Your task to perform on an android device: turn off priority inbox in the gmail app Image 0: 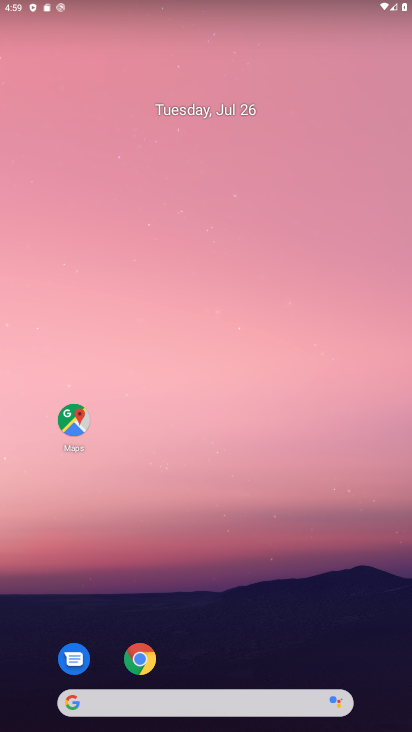
Step 0: drag from (218, 622) to (182, 37)
Your task to perform on an android device: turn off priority inbox in the gmail app Image 1: 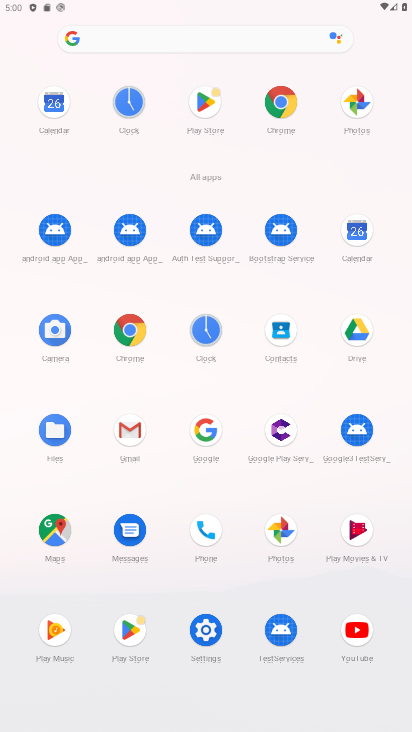
Step 1: click (132, 432)
Your task to perform on an android device: turn off priority inbox in the gmail app Image 2: 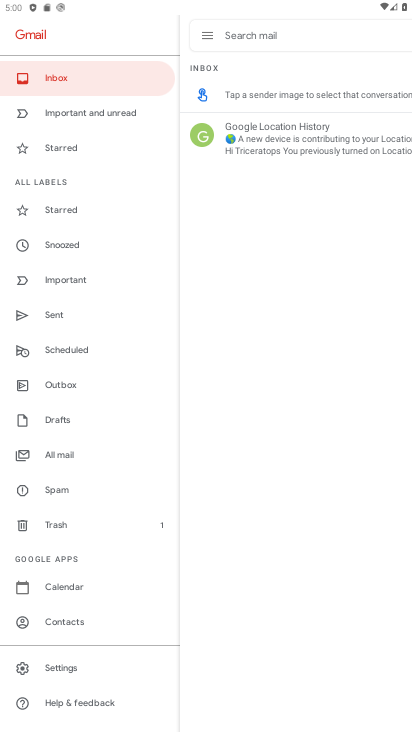
Step 2: click (64, 658)
Your task to perform on an android device: turn off priority inbox in the gmail app Image 3: 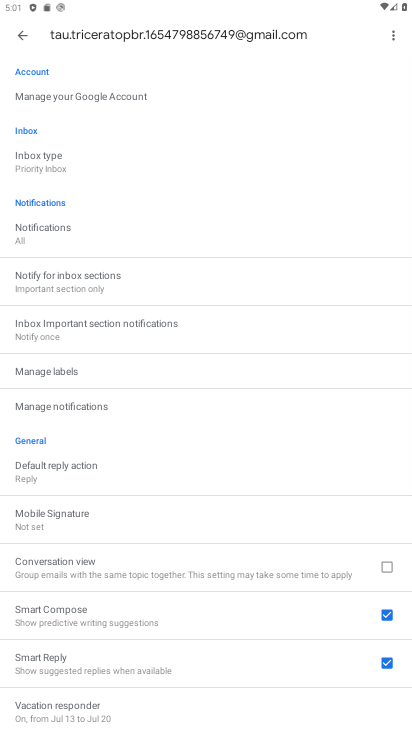
Step 3: drag from (104, 589) to (104, 149)
Your task to perform on an android device: turn off priority inbox in the gmail app Image 4: 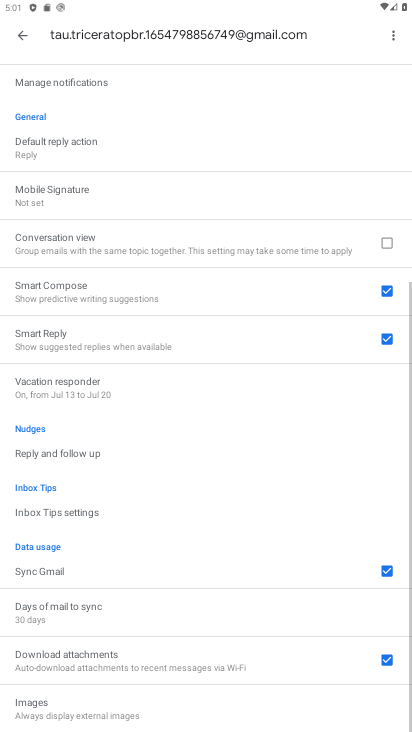
Step 4: drag from (73, 551) to (116, 311)
Your task to perform on an android device: turn off priority inbox in the gmail app Image 5: 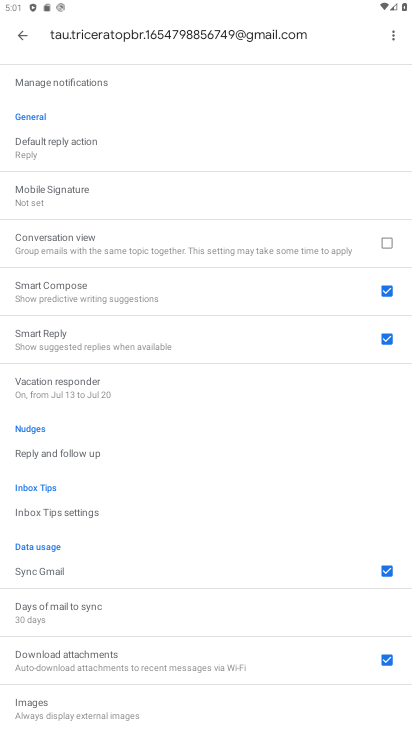
Step 5: drag from (73, 169) to (71, 503)
Your task to perform on an android device: turn off priority inbox in the gmail app Image 6: 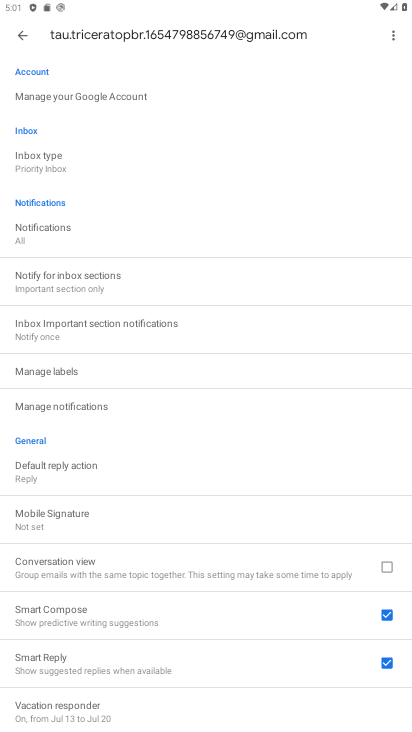
Step 6: click (31, 154)
Your task to perform on an android device: turn off priority inbox in the gmail app Image 7: 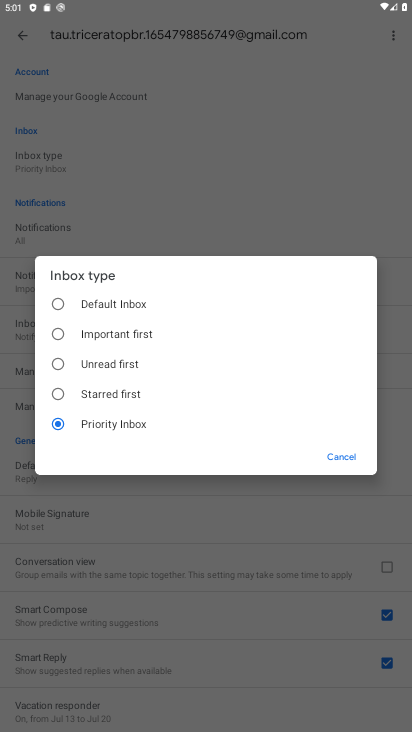
Step 7: click (103, 296)
Your task to perform on an android device: turn off priority inbox in the gmail app Image 8: 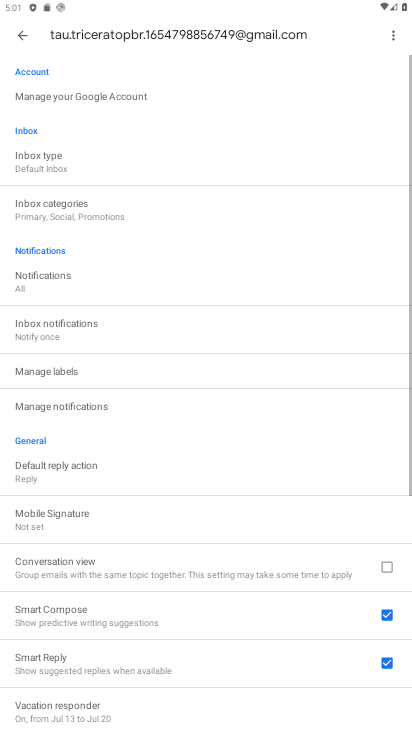
Step 8: task complete